Your task to perform on an android device: Go to display settings Image 0: 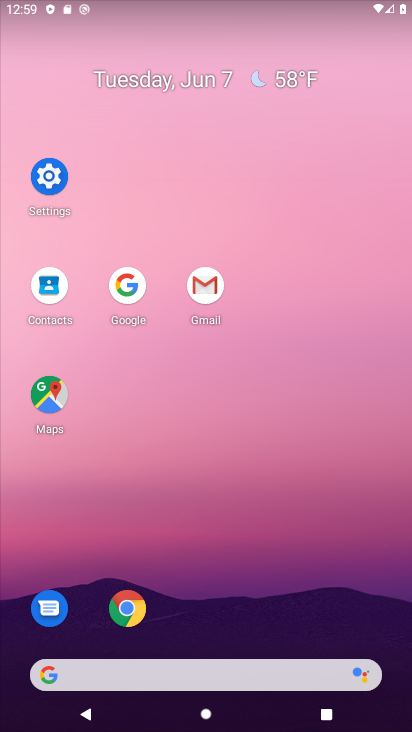
Step 0: click (54, 175)
Your task to perform on an android device: Go to display settings Image 1: 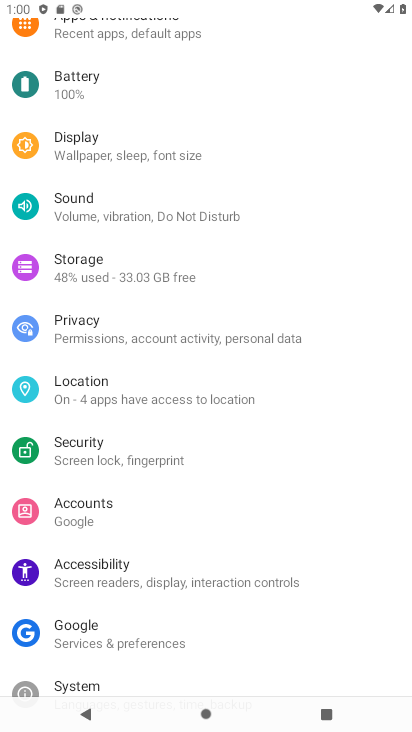
Step 1: click (163, 157)
Your task to perform on an android device: Go to display settings Image 2: 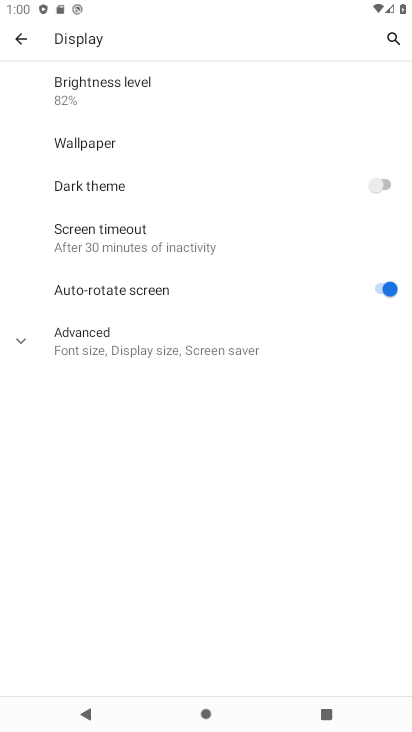
Step 2: task complete